Your task to perform on an android device: Clear the shopping cart on amazon. Add "bose quietcomfort 35" to the cart on amazon, then select checkout. Image 0: 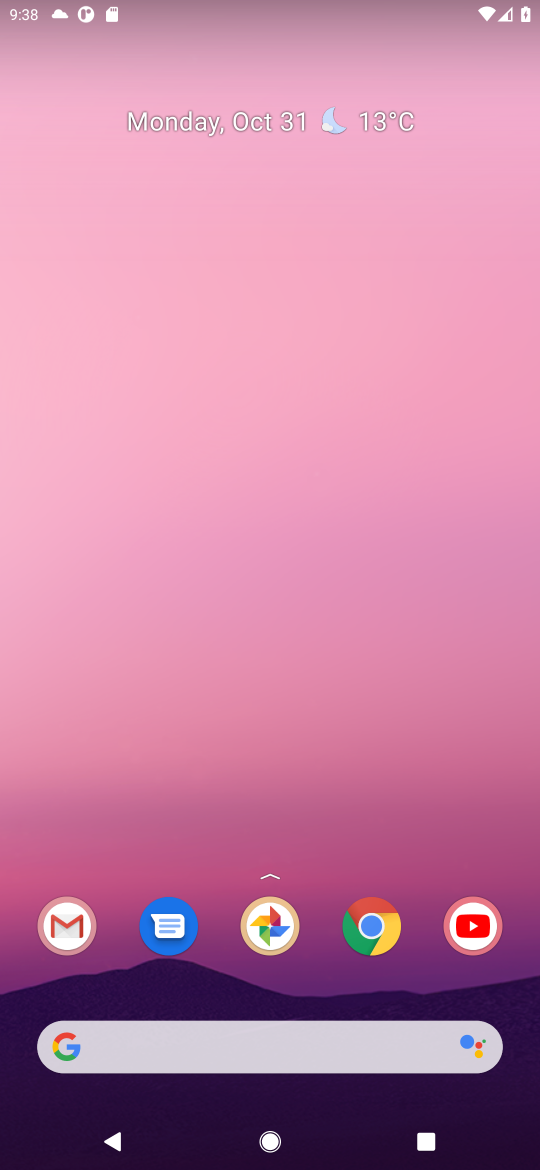
Step 0: click (363, 915)
Your task to perform on an android device: Clear the shopping cart on amazon. Add "bose quietcomfort 35" to the cart on amazon, then select checkout. Image 1: 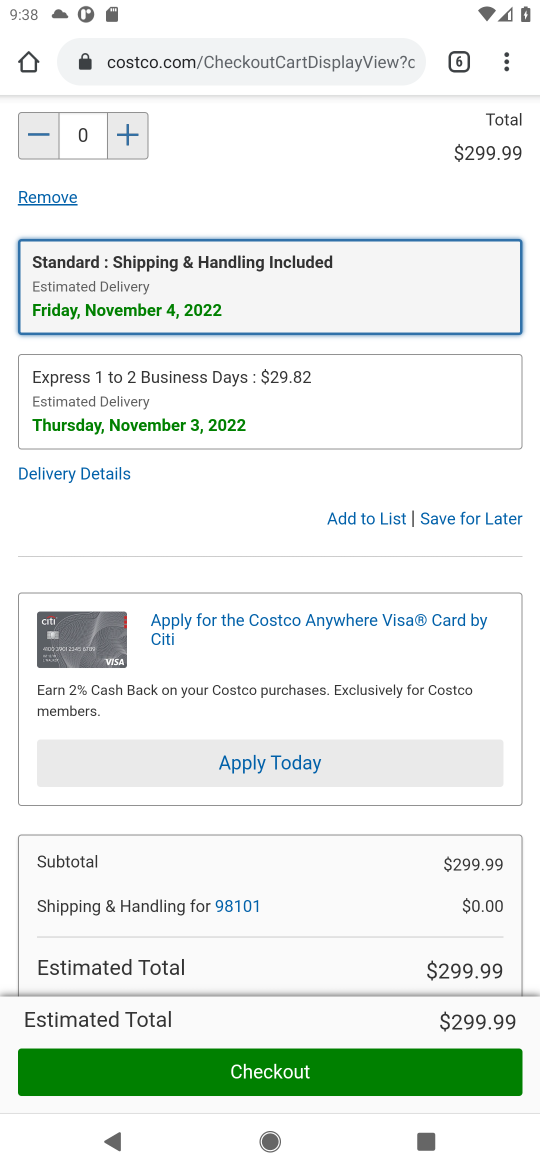
Step 1: click (462, 62)
Your task to perform on an android device: Clear the shopping cart on amazon. Add "bose quietcomfort 35" to the cart on amazon, then select checkout. Image 2: 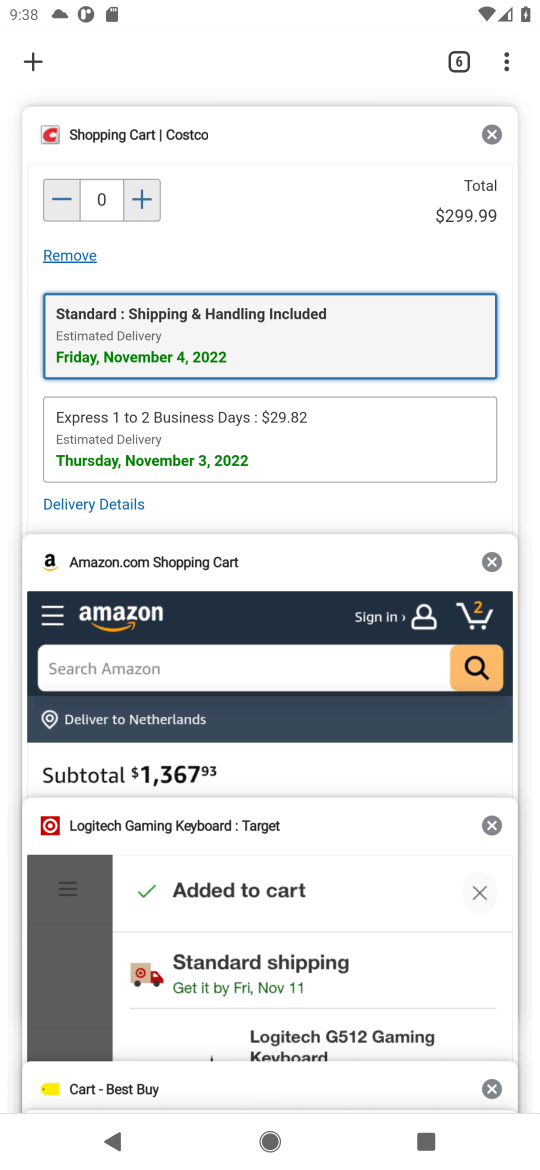
Step 2: click (306, 662)
Your task to perform on an android device: Clear the shopping cart on amazon. Add "bose quietcomfort 35" to the cart on amazon, then select checkout. Image 3: 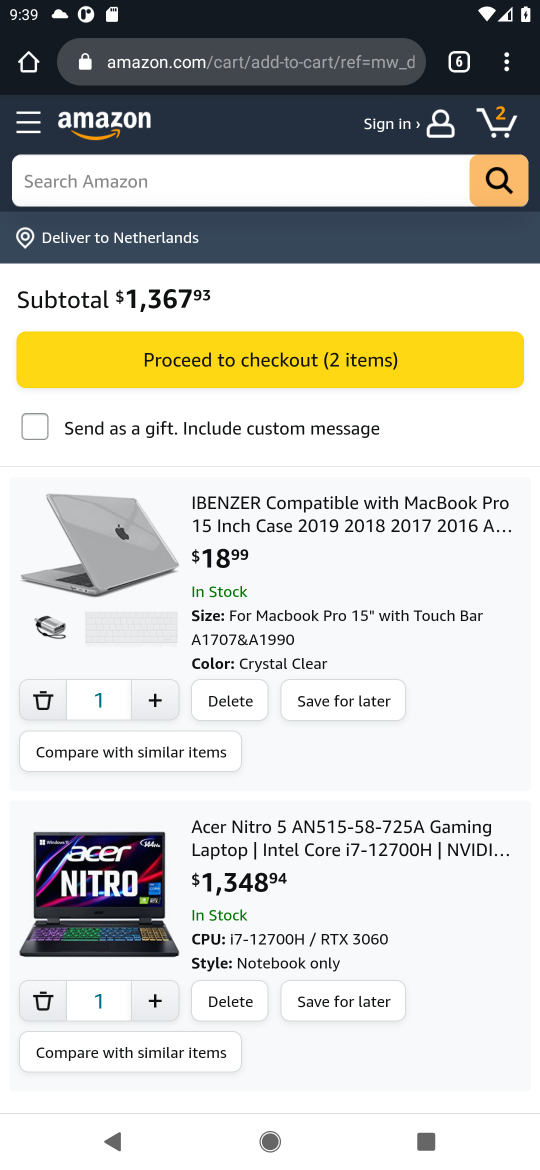
Step 3: click (226, 704)
Your task to perform on an android device: Clear the shopping cart on amazon. Add "bose quietcomfort 35" to the cart on amazon, then select checkout. Image 4: 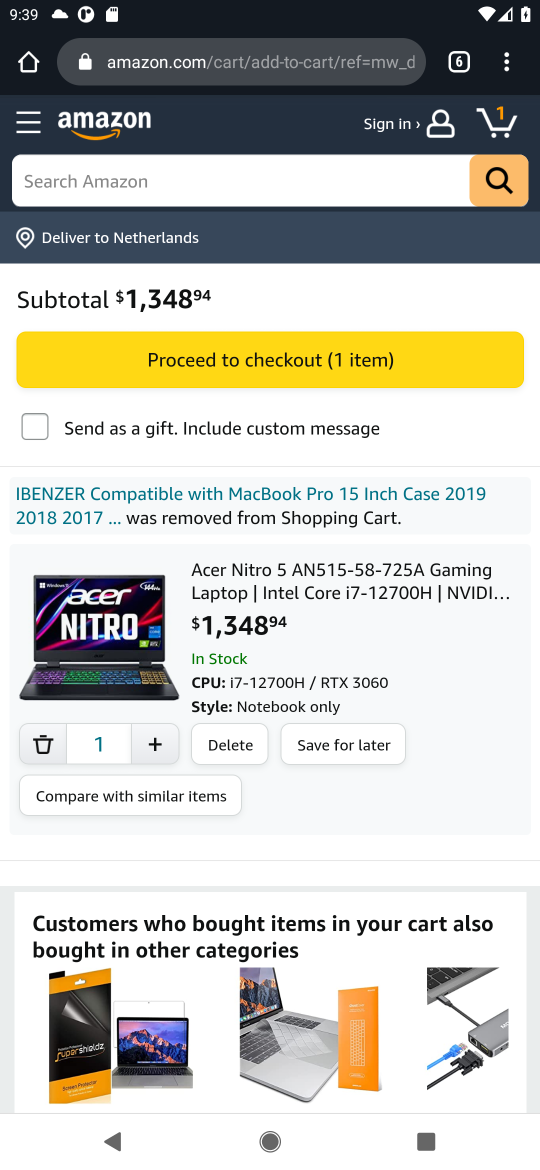
Step 4: click (240, 745)
Your task to perform on an android device: Clear the shopping cart on amazon. Add "bose quietcomfort 35" to the cart on amazon, then select checkout. Image 5: 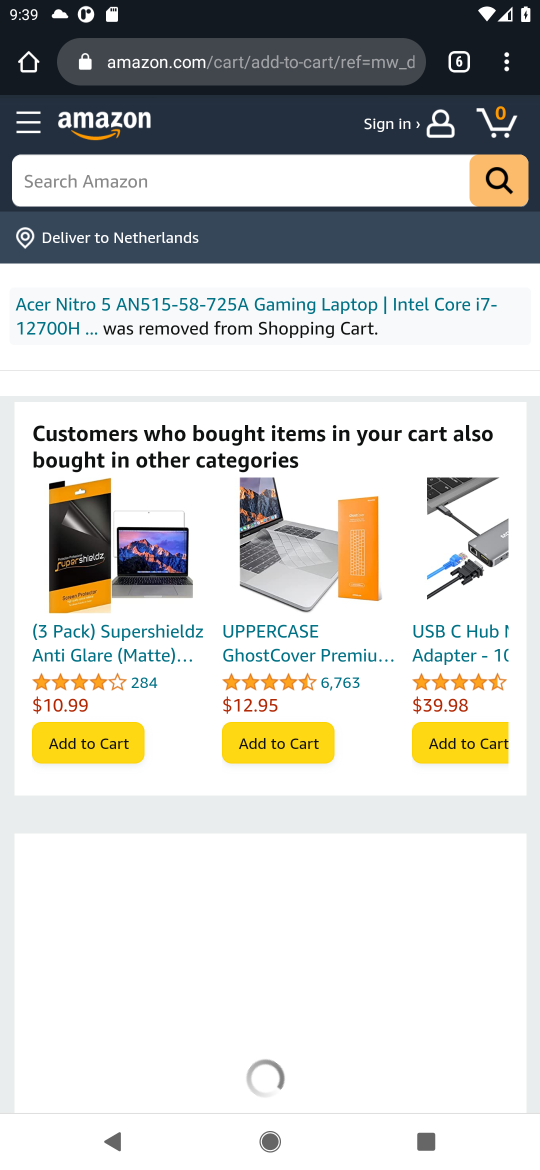
Step 5: click (300, 184)
Your task to perform on an android device: Clear the shopping cart on amazon. Add "bose quietcomfort 35" to the cart on amazon, then select checkout. Image 6: 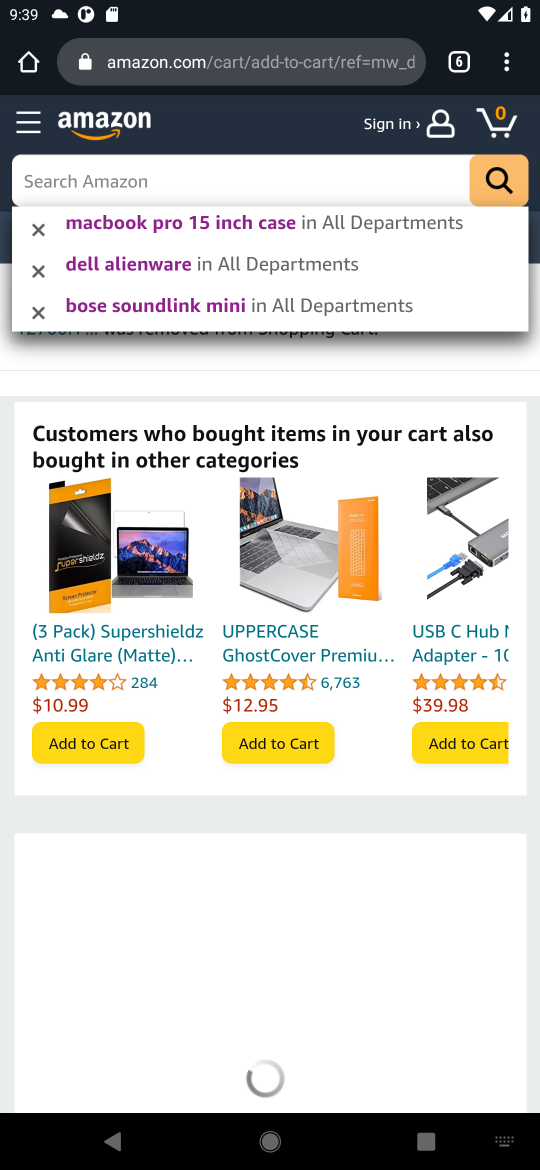
Step 6: type "bose quietcomfort 35"
Your task to perform on an android device: Clear the shopping cart on amazon. Add "bose quietcomfort 35" to the cart on amazon, then select checkout. Image 7: 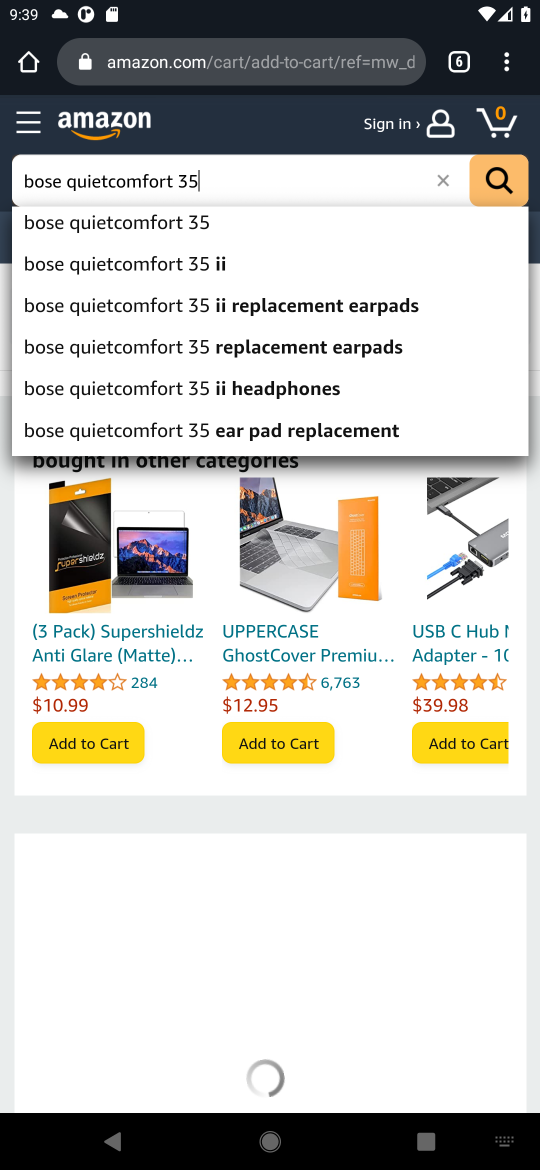
Step 7: click (175, 218)
Your task to perform on an android device: Clear the shopping cart on amazon. Add "bose quietcomfort 35" to the cart on amazon, then select checkout. Image 8: 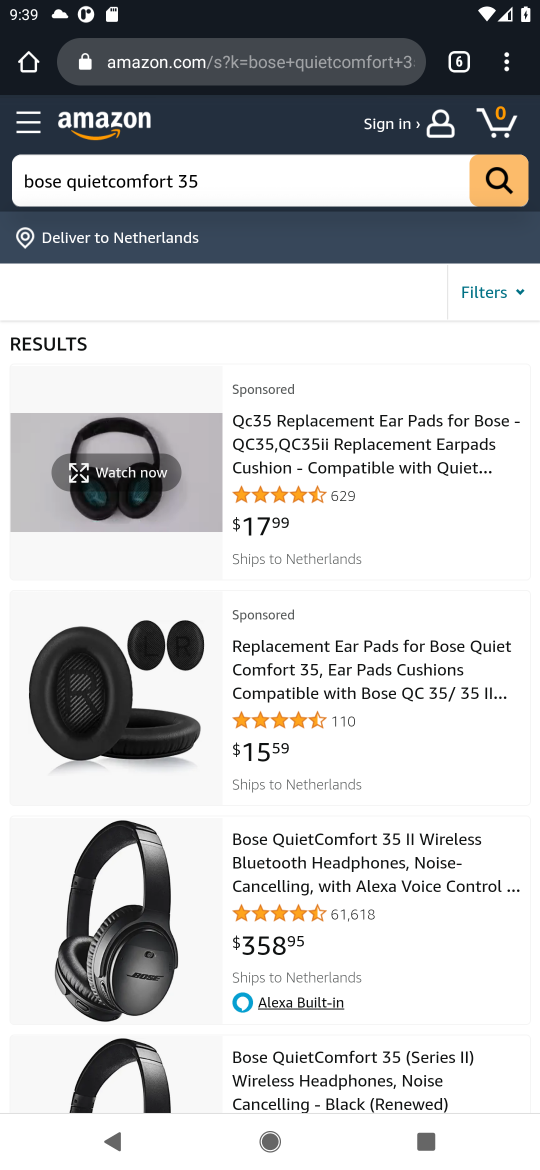
Step 8: click (285, 466)
Your task to perform on an android device: Clear the shopping cart on amazon. Add "bose quietcomfort 35" to the cart on amazon, then select checkout. Image 9: 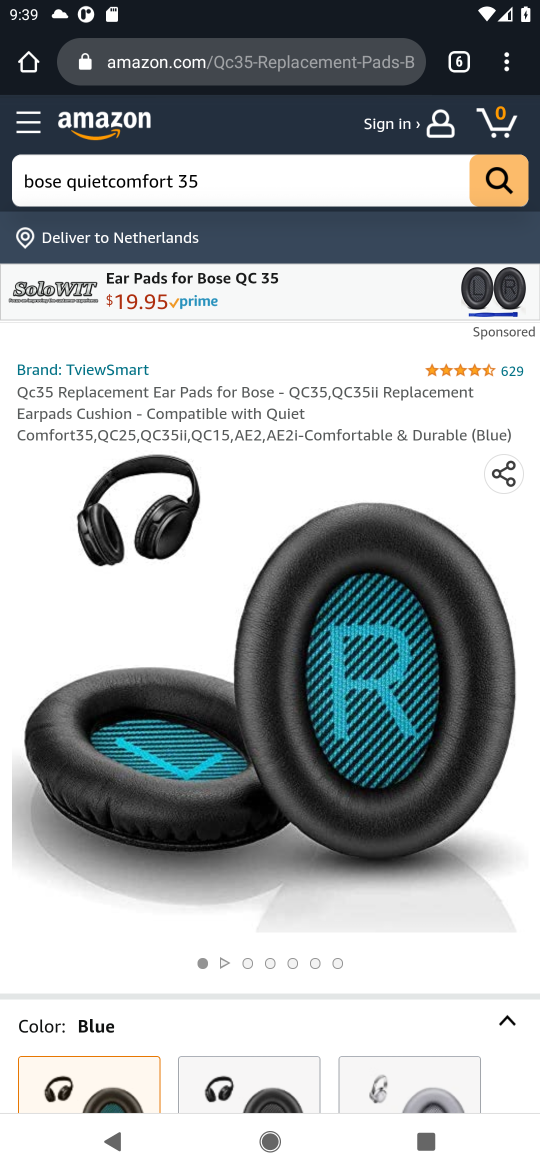
Step 9: drag from (272, 884) to (353, 242)
Your task to perform on an android device: Clear the shopping cart on amazon. Add "bose quietcomfort 35" to the cart on amazon, then select checkout. Image 10: 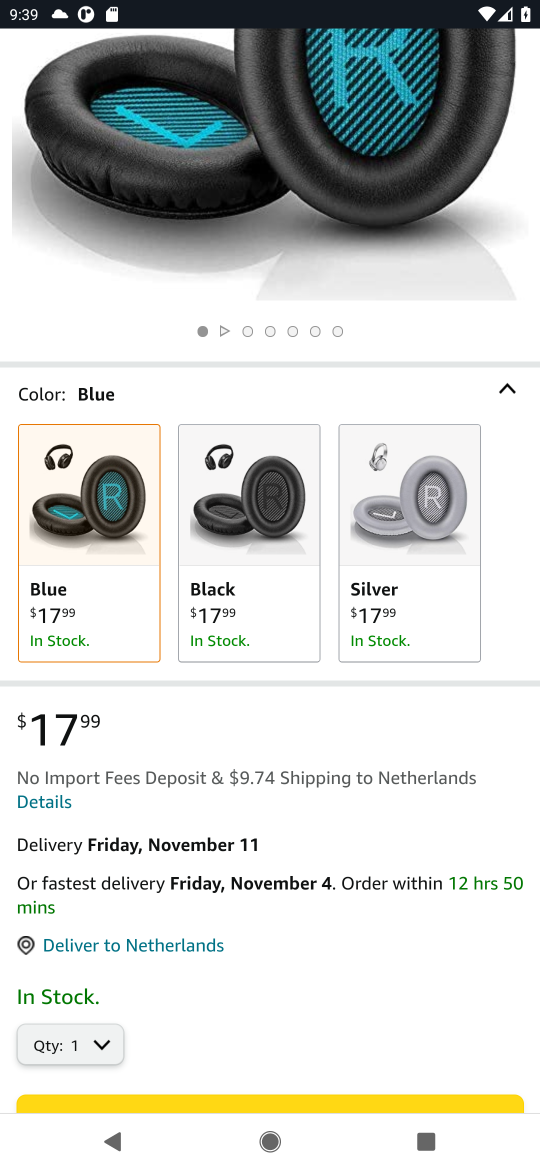
Step 10: drag from (363, 963) to (428, 452)
Your task to perform on an android device: Clear the shopping cart on amazon. Add "bose quietcomfort 35" to the cart on amazon, then select checkout. Image 11: 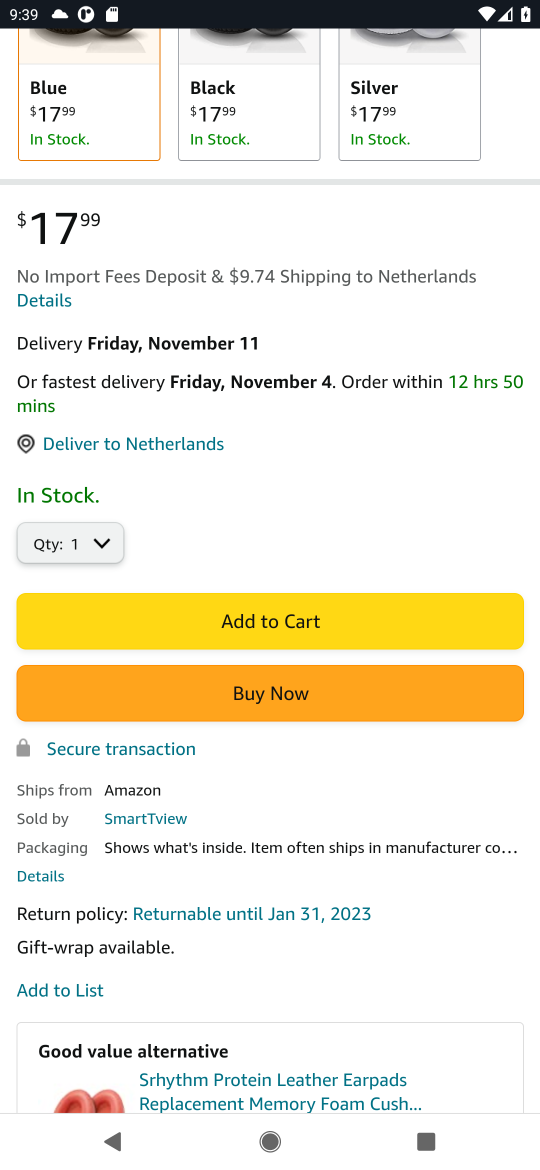
Step 11: click (330, 609)
Your task to perform on an android device: Clear the shopping cart on amazon. Add "bose quietcomfort 35" to the cart on amazon, then select checkout. Image 12: 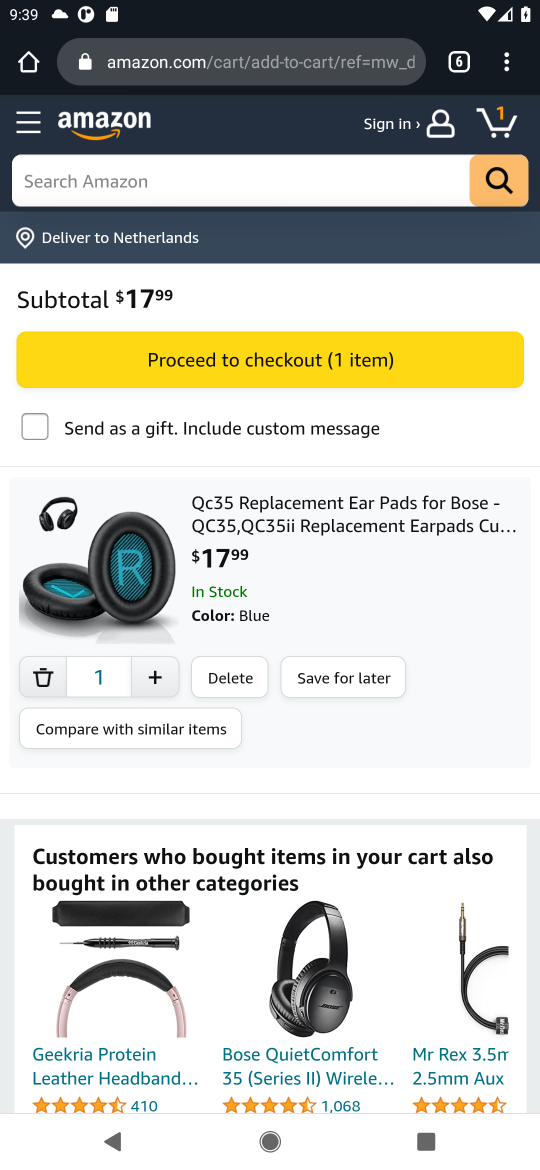
Step 12: task complete